Your task to perform on an android device: open device folders in google photos Image 0: 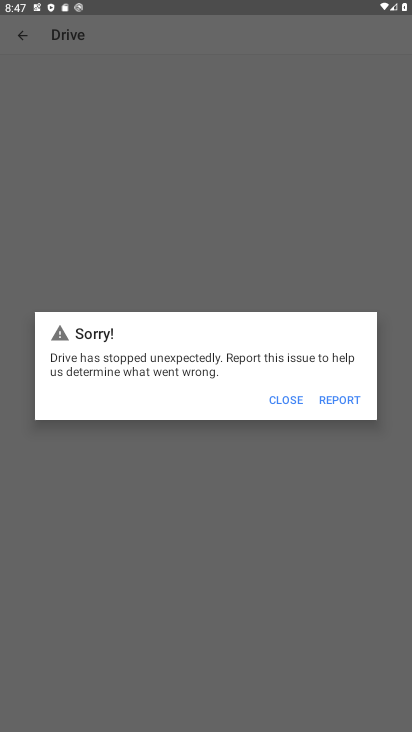
Step 0: press home button
Your task to perform on an android device: open device folders in google photos Image 1: 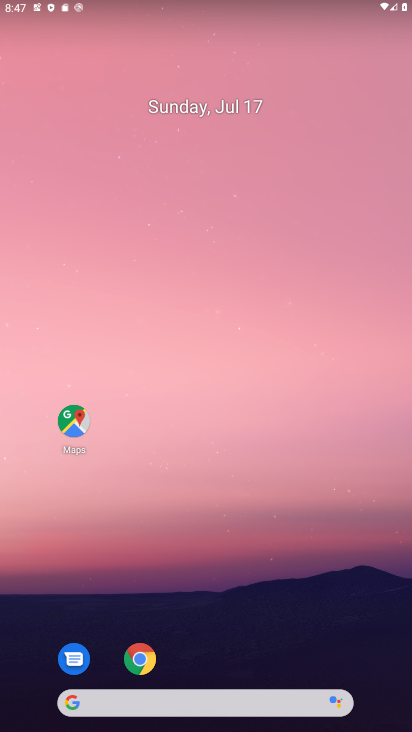
Step 1: drag from (232, 640) to (270, 144)
Your task to perform on an android device: open device folders in google photos Image 2: 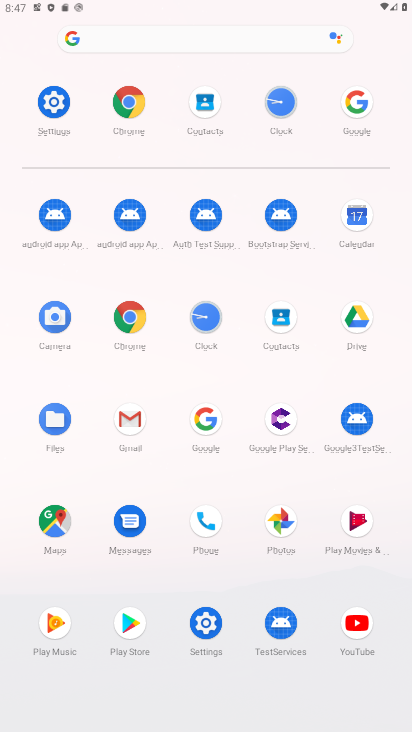
Step 2: click (283, 533)
Your task to perform on an android device: open device folders in google photos Image 3: 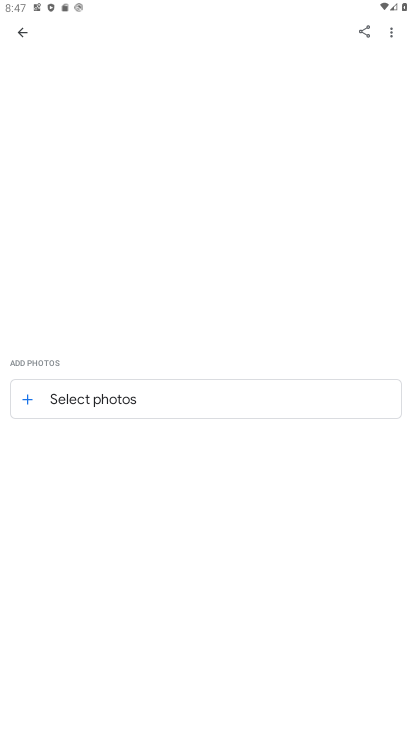
Step 3: click (25, 34)
Your task to perform on an android device: open device folders in google photos Image 4: 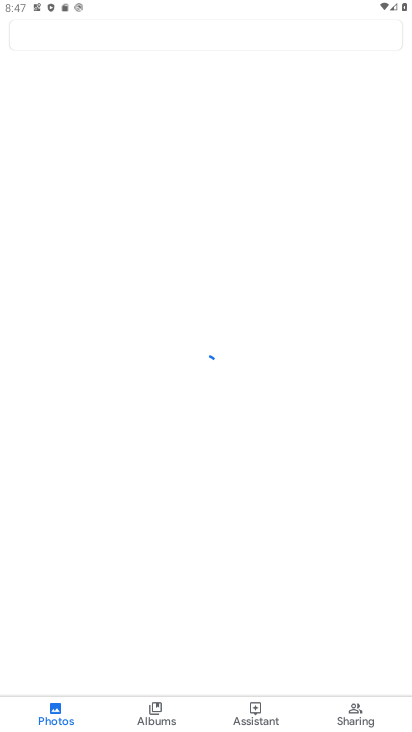
Step 4: click (25, 34)
Your task to perform on an android device: open device folders in google photos Image 5: 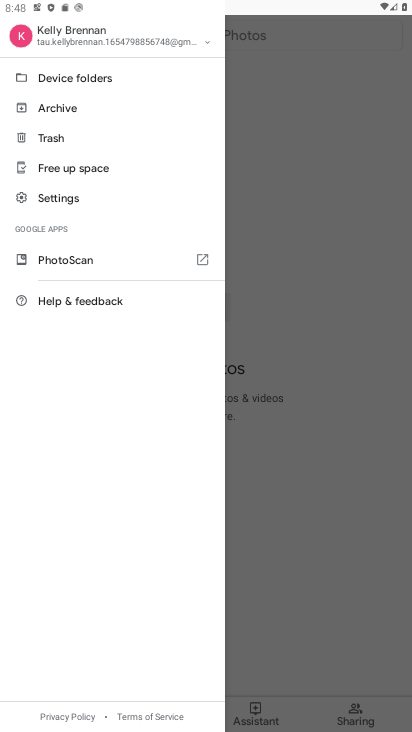
Step 5: click (112, 80)
Your task to perform on an android device: open device folders in google photos Image 6: 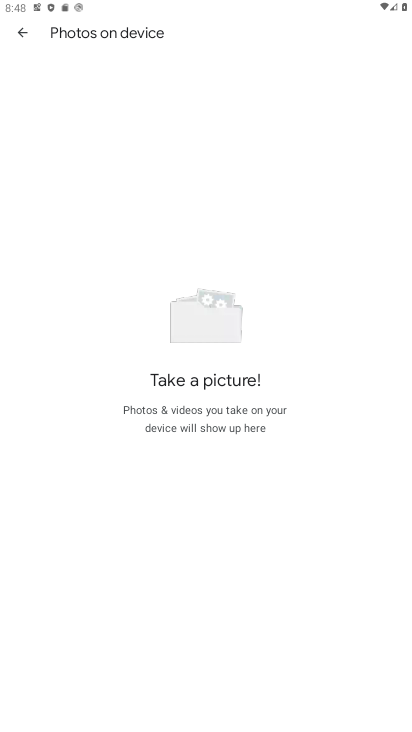
Step 6: task complete